Your task to perform on an android device: allow cookies in the chrome app Image 0: 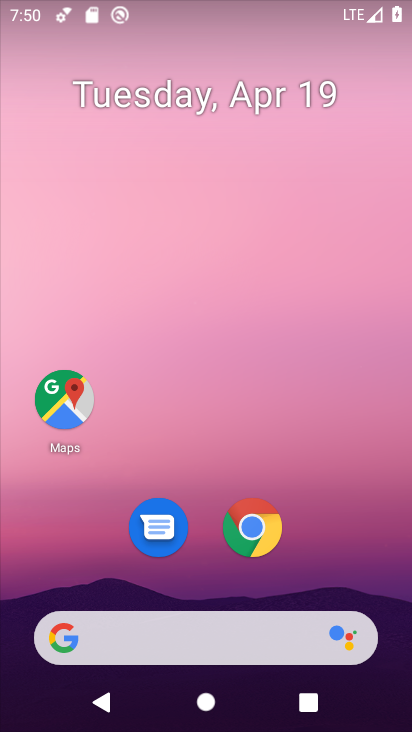
Step 0: click (270, 535)
Your task to perform on an android device: allow cookies in the chrome app Image 1: 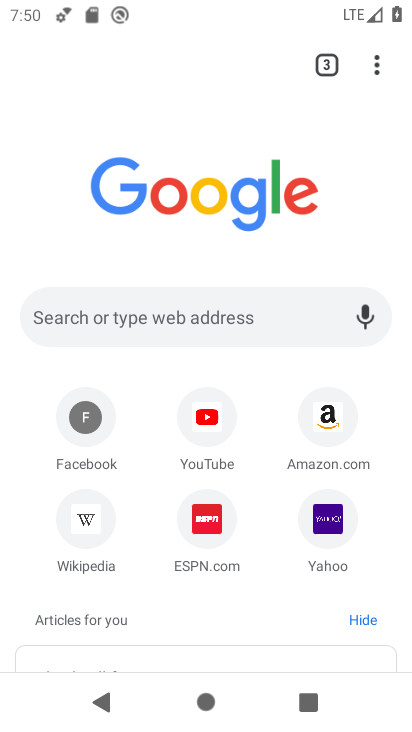
Step 1: click (405, 80)
Your task to perform on an android device: allow cookies in the chrome app Image 2: 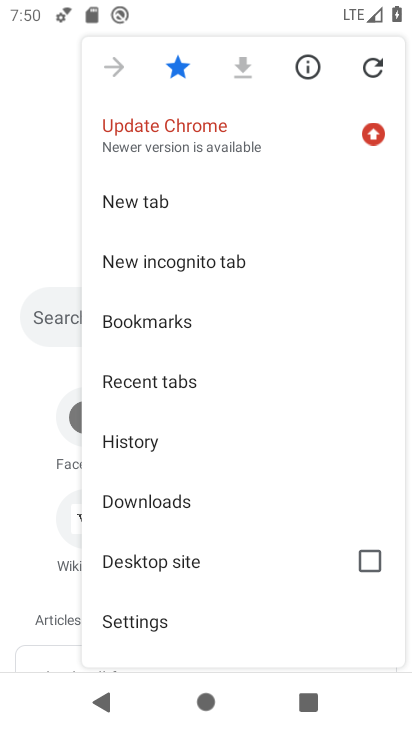
Step 2: click (150, 621)
Your task to perform on an android device: allow cookies in the chrome app Image 3: 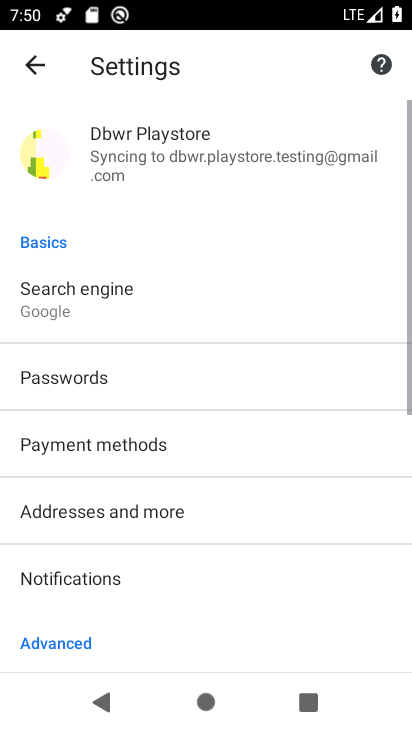
Step 3: drag from (298, 598) to (310, 166)
Your task to perform on an android device: allow cookies in the chrome app Image 4: 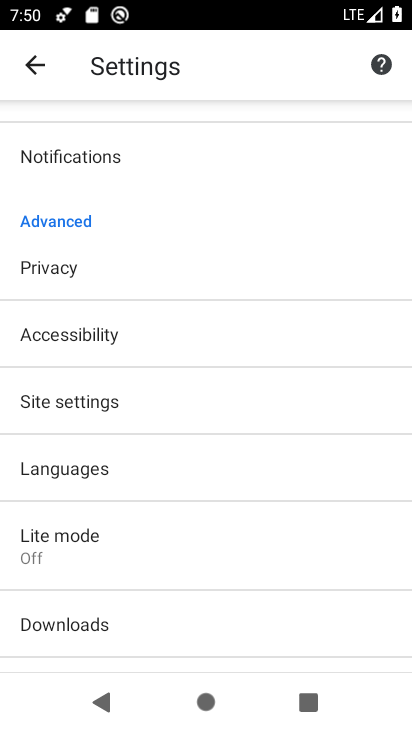
Step 4: click (147, 401)
Your task to perform on an android device: allow cookies in the chrome app Image 5: 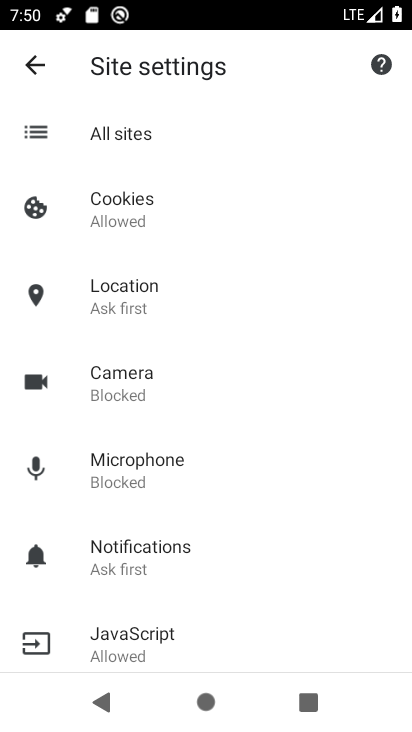
Step 5: click (148, 202)
Your task to perform on an android device: allow cookies in the chrome app Image 6: 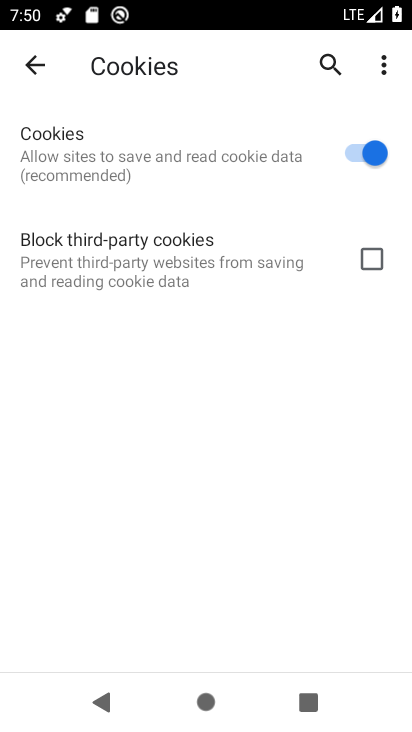
Step 6: task complete